Your task to perform on an android device: Open Google Chrome and open the bookmarks view Image 0: 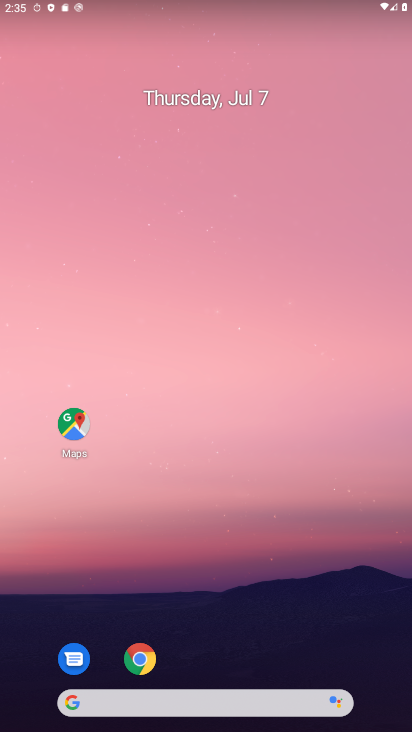
Step 0: click (143, 655)
Your task to perform on an android device: Open Google Chrome and open the bookmarks view Image 1: 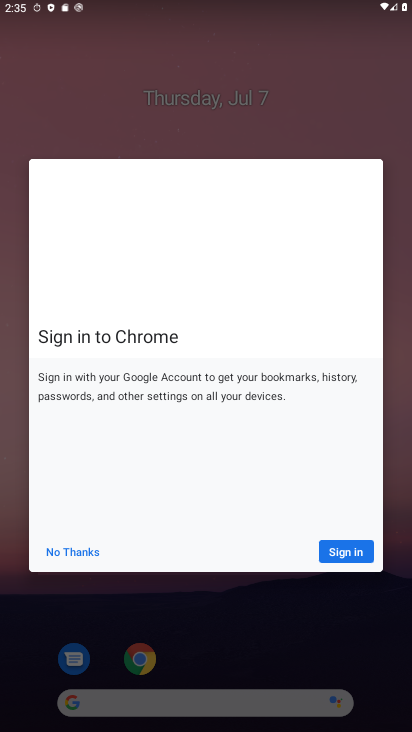
Step 1: click (352, 546)
Your task to perform on an android device: Open Google Chrome and open the bookmarks view Image 2: 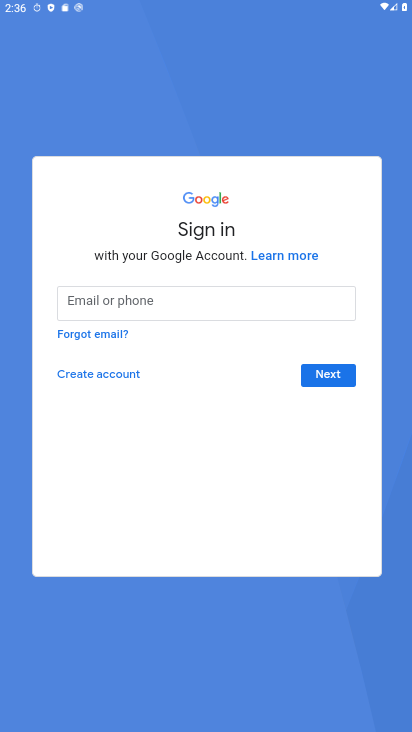
Step 2: task complete